Your task to perform on an android device: toggle airplane mode Image 0: 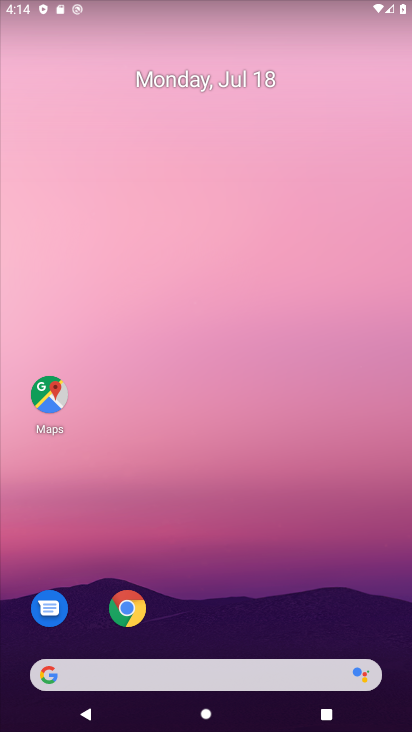
Step 0: drag from (277, 599) to (220, 132)
Your task to perform on an android device: toggle airplane mode Image 1: 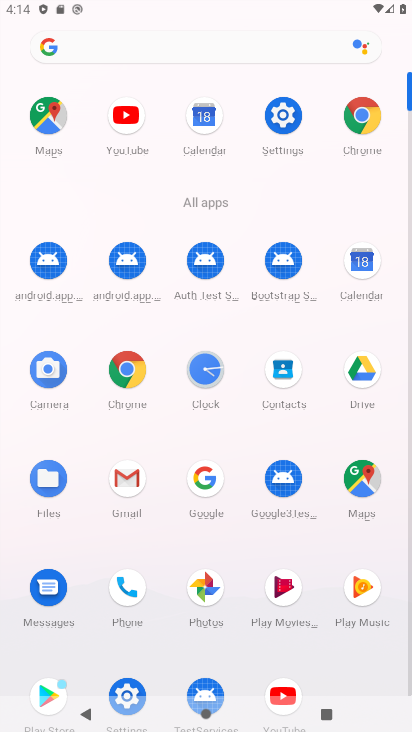
Step 1: click (281, 111)
Your task to perform on an android device: toggle airplane mode Image 2: 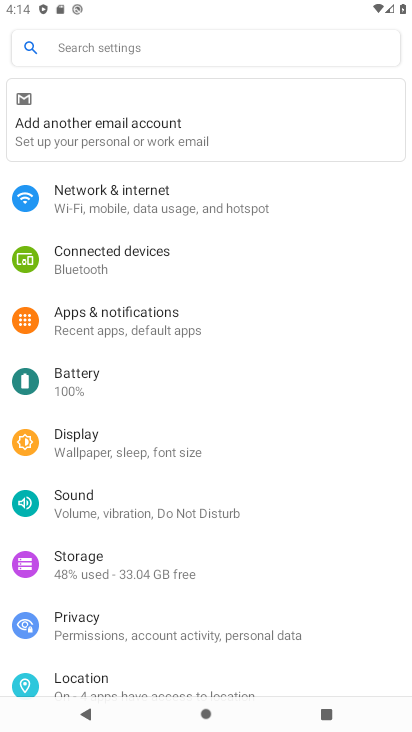
Step 2: click (142, 184)
Your task to perform on an android device: toggle airplane mode Image 3: 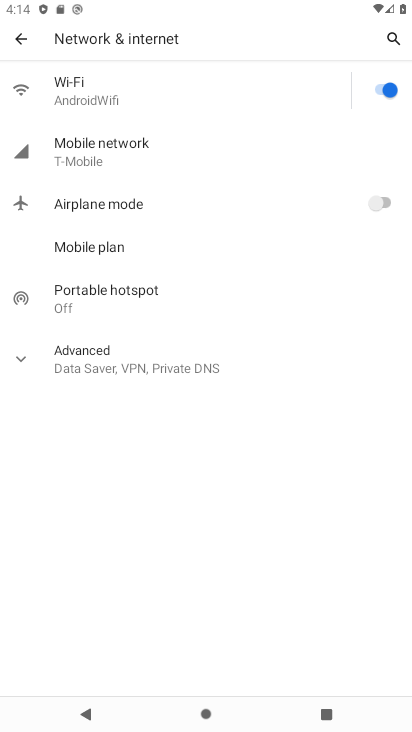
Step 3: click (379, 193)
Your task to perform on an android device: toggle airplane mode Image 4: 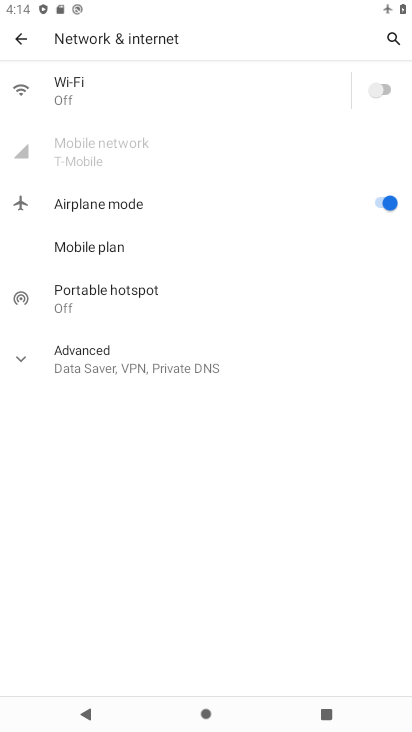
Step 4: task complete